Your task to perform on an android device: see sites visited before in the chrome app Image 0: 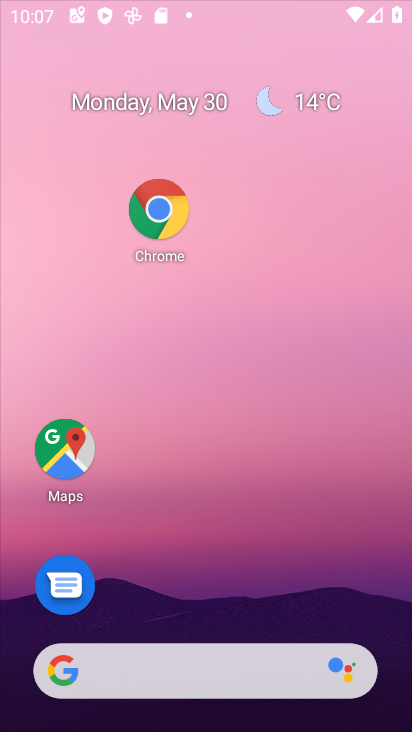
Step 0: click (342, 139)
Your task to perform on an android device: see sites visited before in the chrome app Image 1: 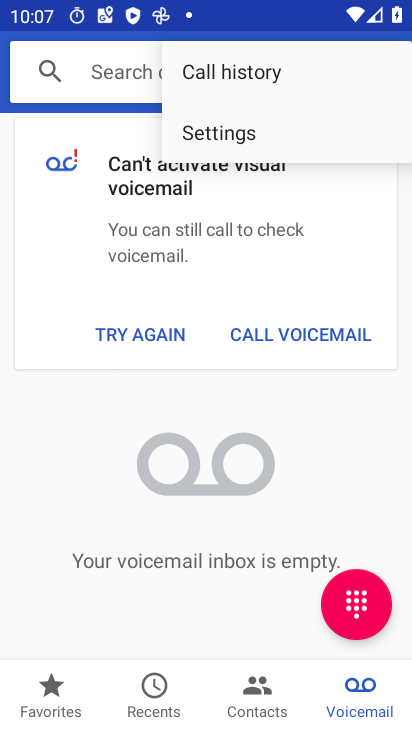
Step 1: press home button
Your task to perform on an android device: see sites visited before in the chrome app Image 2: 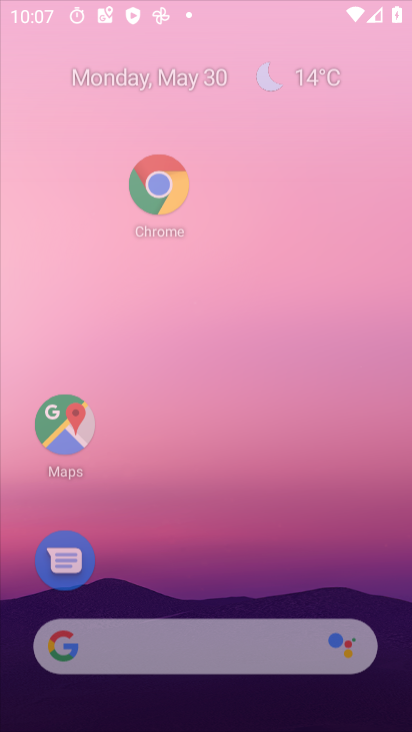
Step 2: drag from (173, 598) to (264, 86)
Your task to perform on an android device: see sites visited before in the chrome app Image 3: 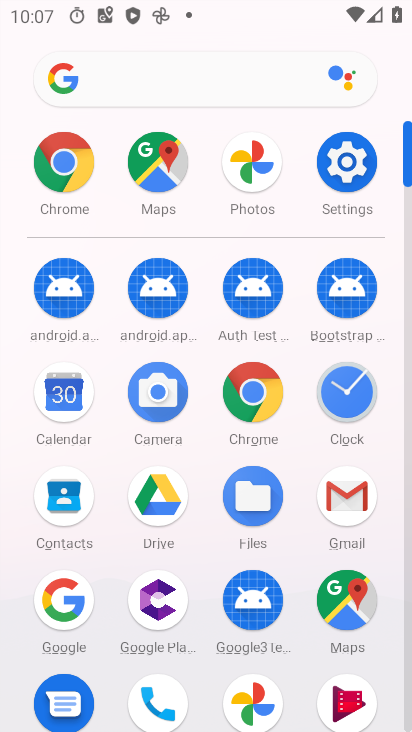
Step 3: click (253, 391)
Your task to perform on an android device: see sites visited before in the chrome app Image 4: 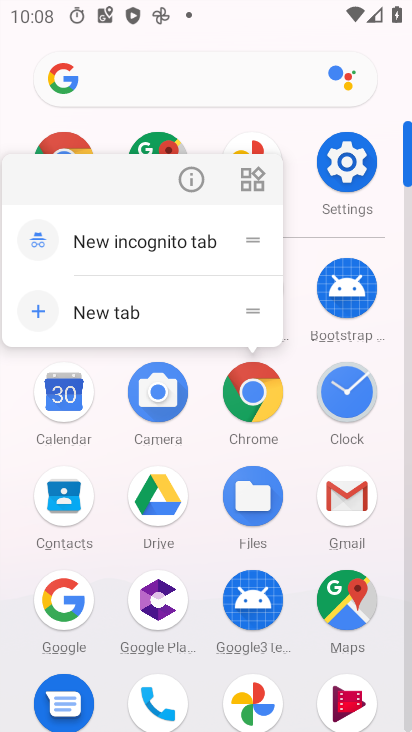
Step 4: click (188, 176)
Your task to perform on an android device: see sites visited before in the chrome app Image 5: 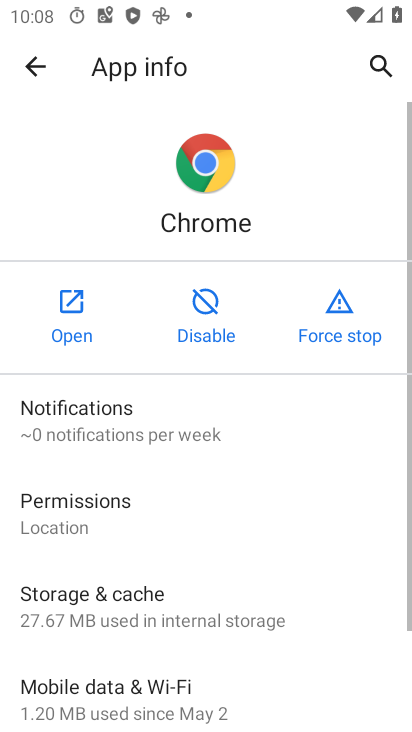
Step 5: click (77, 296)
Your task to perform on an android device: see sites visited before in the chrome app Image 6: 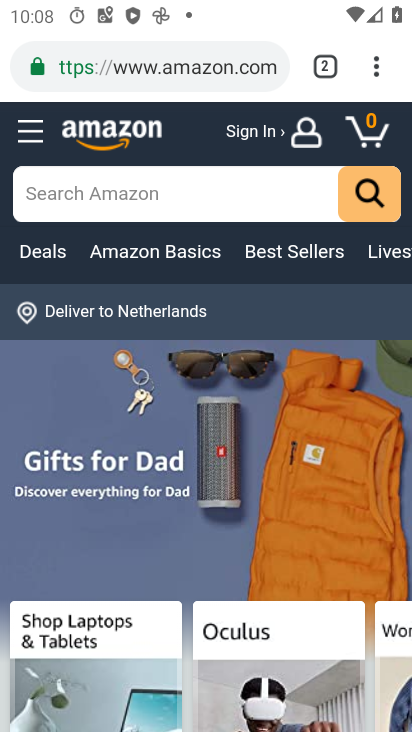
Step 6: drag from (225, 532) to (269, 167)
Your task to perform on an android device: see sites visited before in the chrome app Image 7: 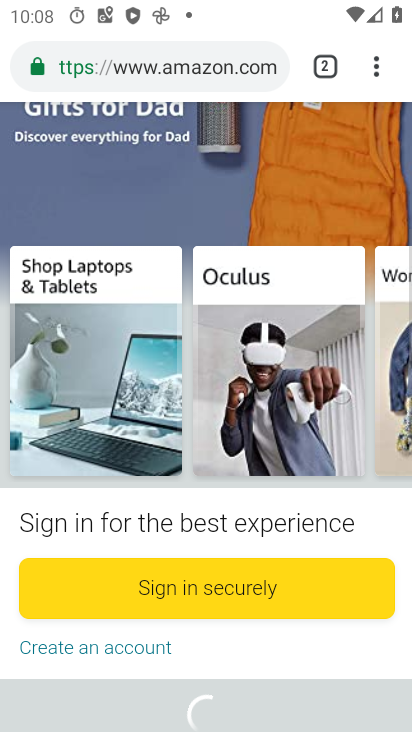
Step 7: drag from (290, 96) to (258, 569)
Your task to perform on an android device: see sites visited before in the chrome app Image 8: 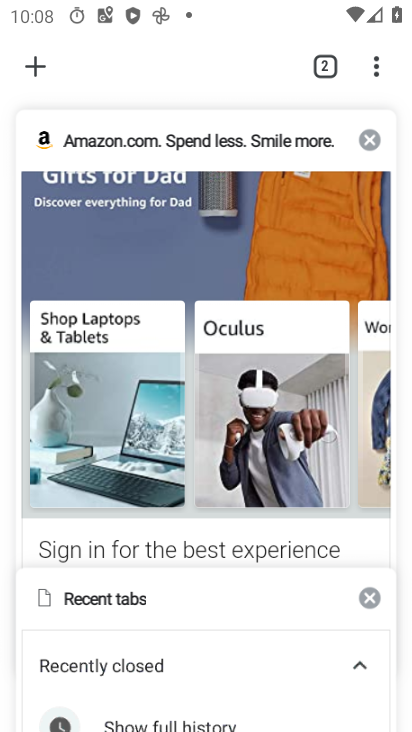
Step 8: click (265, 211)
Your task to perform on an android device: see sites visited before in the chrome app Image 9: 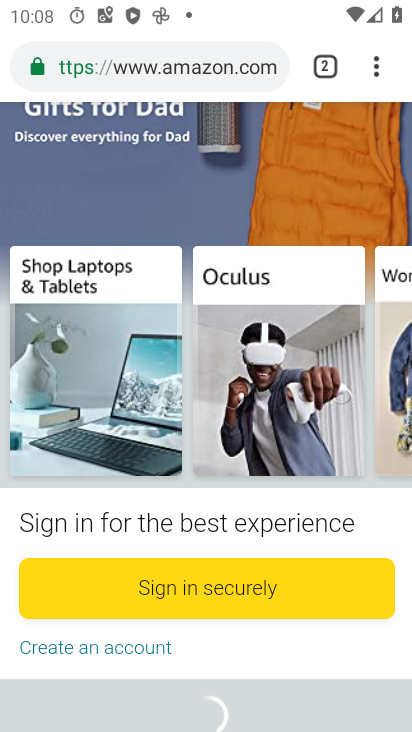
Step 9: click (371, 63)
Your task to perform on an android device: see sites visited before in the chrome app Image 10: 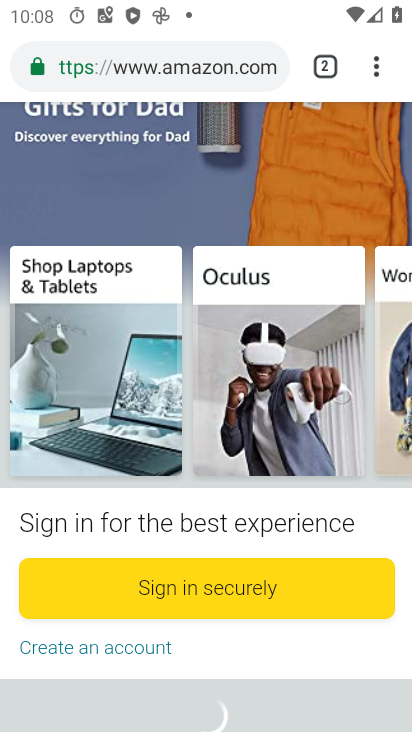
Step 10: task complete